Your task to perform on an android device: Open Google Image 0: 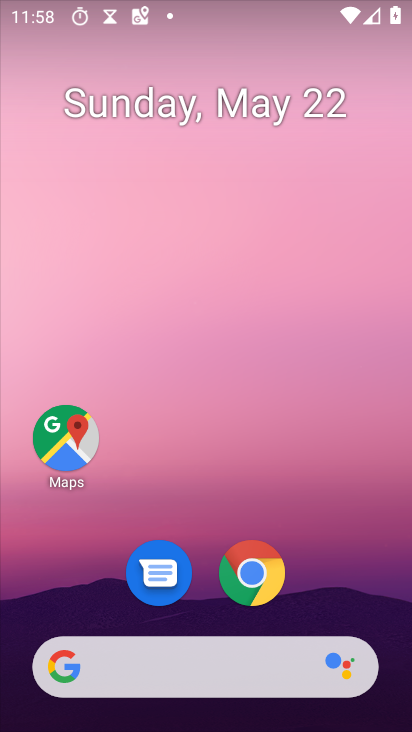
Step 0: press home button
Your task to perform on an android device: Open Google Image 1: 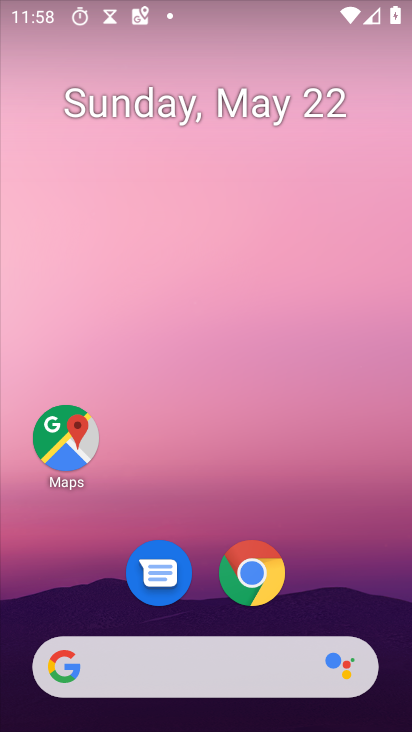
Step 1: drag from (162, 663) to (295, 149)
Your task to perform on an android device: Open Google Image 2: 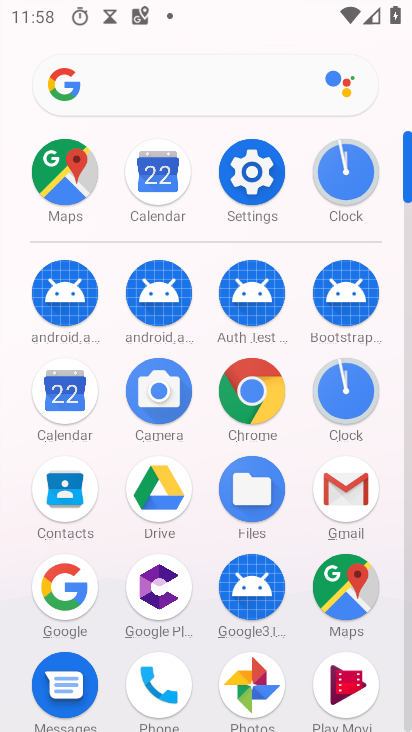
Step 2: click (77, 596)
Your task to perform on an android device: Open Google Image 3: 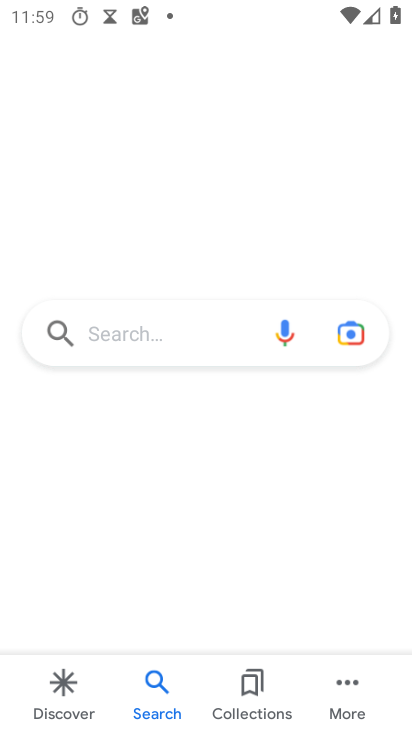
Step 3: task complete